Your task to perform on an android device: turn on priority inbox in the gmail app Image 0: 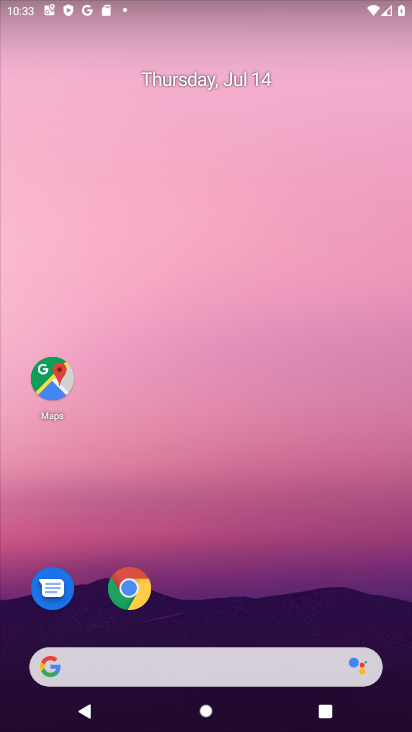
Step 0: drag from (220, 639) to (328, 70)
Your task to perform on an android device: turn on priority inbox in the gmail app Image 1: 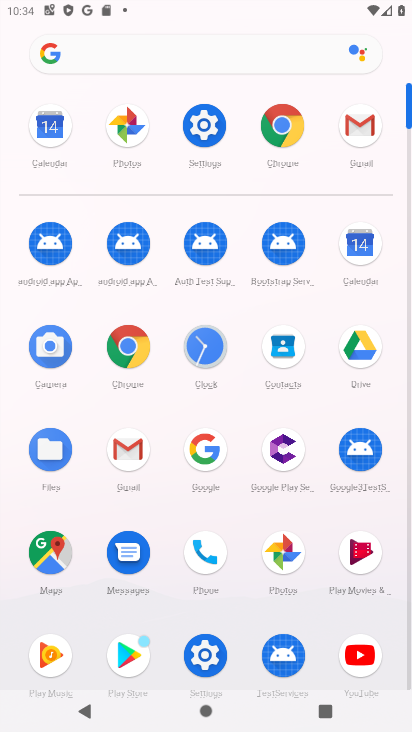
Step 1: click (360, 123)
Your task to perform on an android device: turn on priority inbox in the gmail app Image 2: 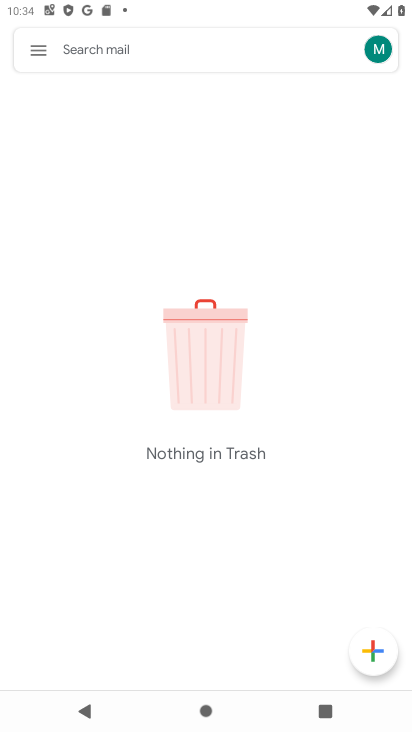
Step 2: click (42, 60)
Your task to perform on an android device: turn on priority inbox in the gmail app Image 3: 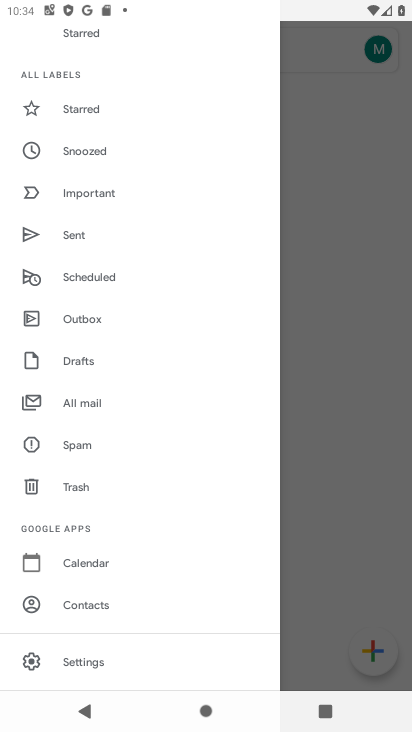
Step 3: click (71, 667)
Your task to perform on an android device: turn on priority inbox in the gmail app Image 4: 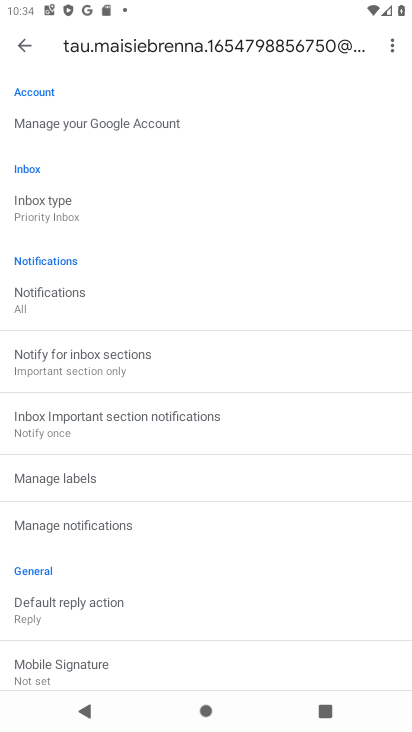
Step 4: click (33, 207)
Your task to perform on an android device: turn on priority inbox in the gmail app Image 5: 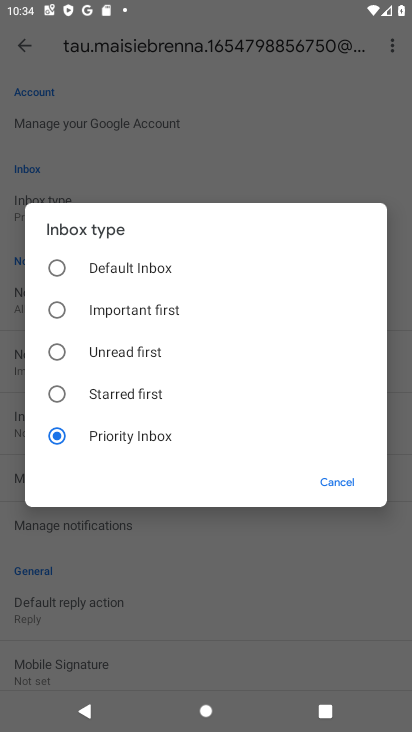
Step 5: task complete